Your task to perform on an android device: move a message to another label in the gmail app Image 0: 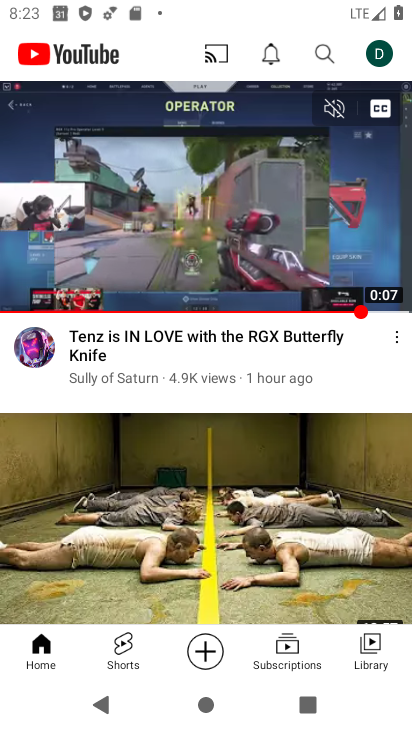
Step 0: press home button
Your task to perform on an android device: move a message to another label in the gmail app Image 1: 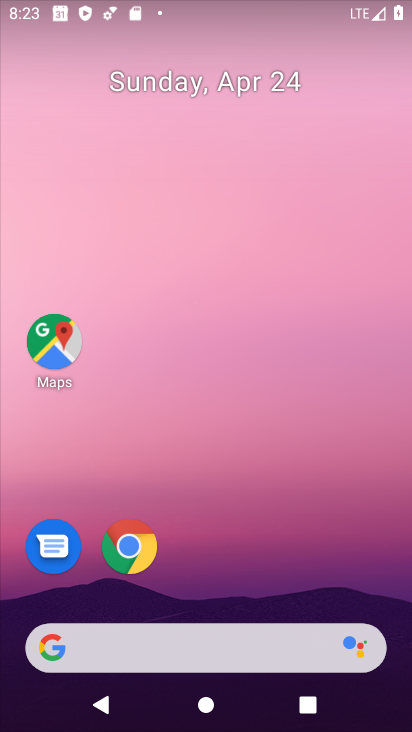
Step 1: drag from (269, 552) to (283, 75)
Your task to perform on an android device: move a message to another label in the gmail app Image 2: 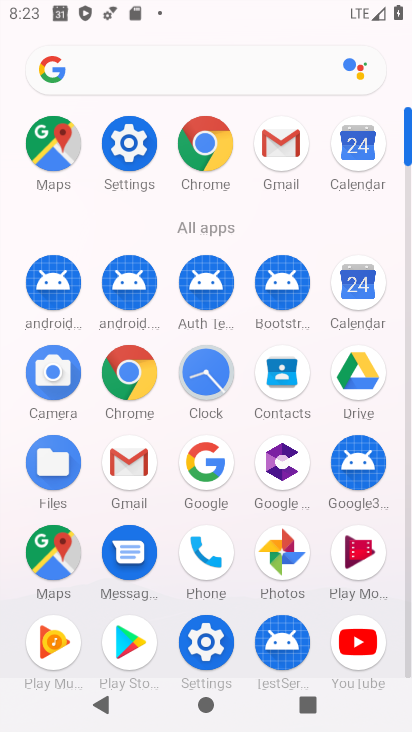
Step 2: click (273, 155)
Your task to perform on an android device: move a message to another label in the gmail app Image 3: 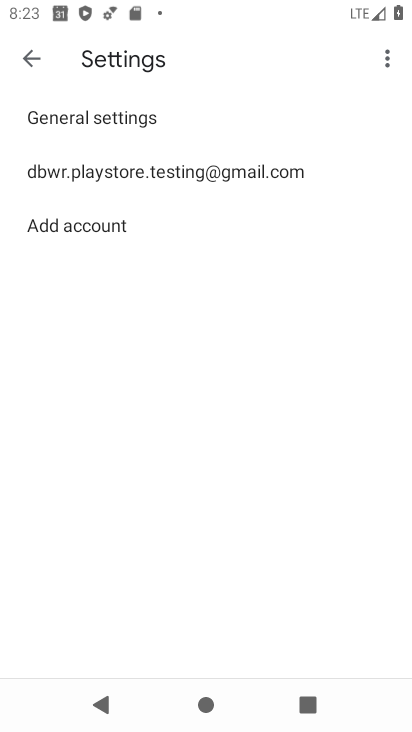
Step 3: click (27, 51)
Your task to perform on an android device: move a message to another label in the gmail app Image 4: 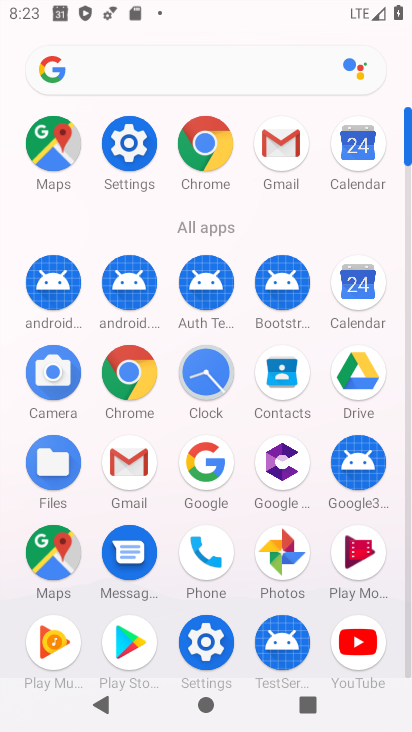
Step 4: click (148, 467)
Your task to perform on an android device: move a message to another label in the gmail app Image 5: 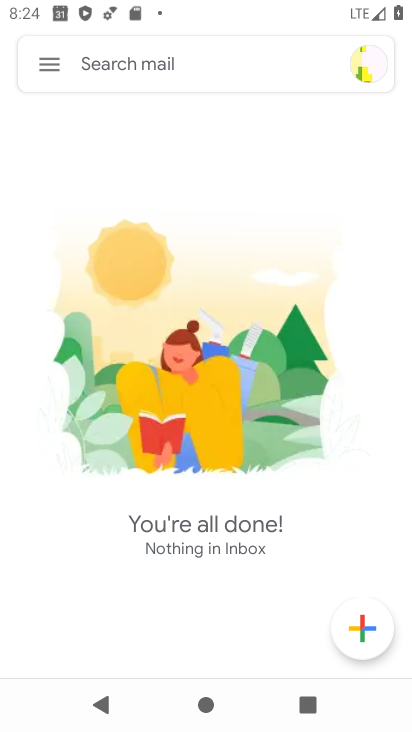
Step 5: click (56, 60)
Your task to perform on an android device: move a message to another label in the gmail app Image 6: 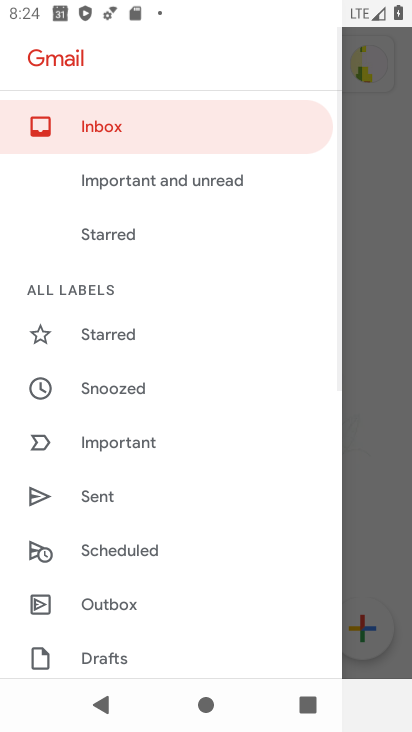
Step 6: drag from (141, 616) to (195, 272)
Your task to perform on an android device: move a message to another label in the gmail app Image 7: 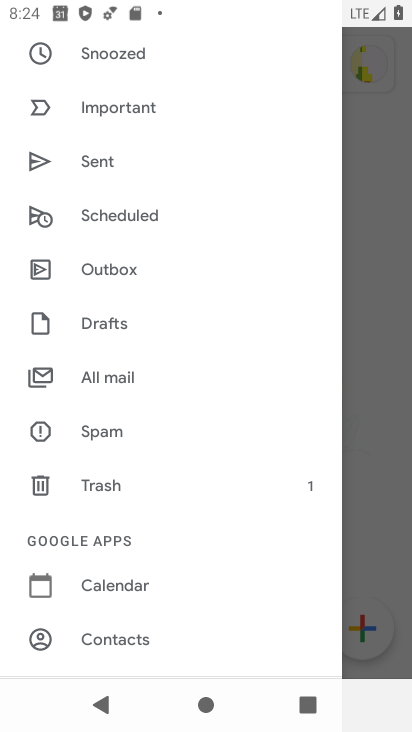
Step 7: click (119, 366)
Your task to perform on an android device: move a message to another label in the gmail app Image 8: 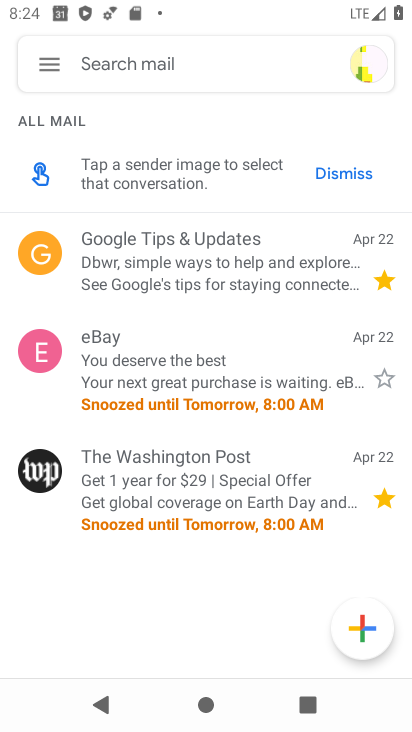
Step 8: click (264, 242)
Your task to perform on an android device: move a message to another label in the gmail app Image 9: 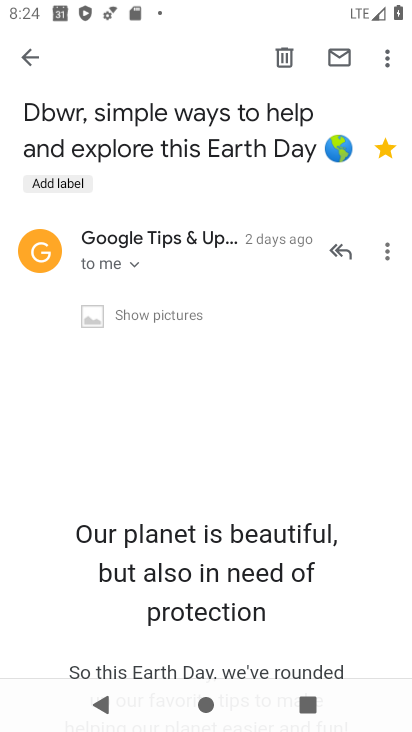
Step 9: click (387, 65)
Your task to perform on an android device: move a message to another label in the gmail app Image 10: 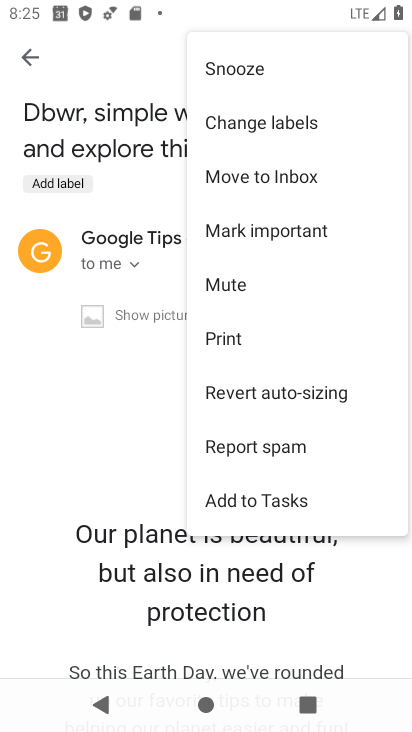
Step 10: click (334, 127)
Your task to perform on an android device: move a message to another label in the gmail app Image 11: 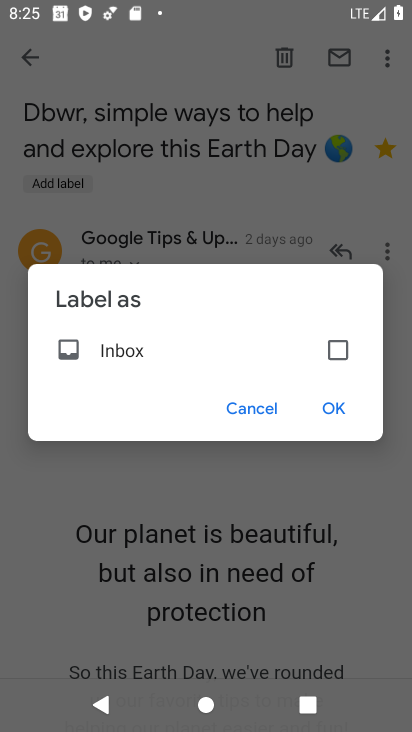
Step 11: click (262, 354)
Your task to perform on an android device: move a message to another label in the gmail app Image 12: 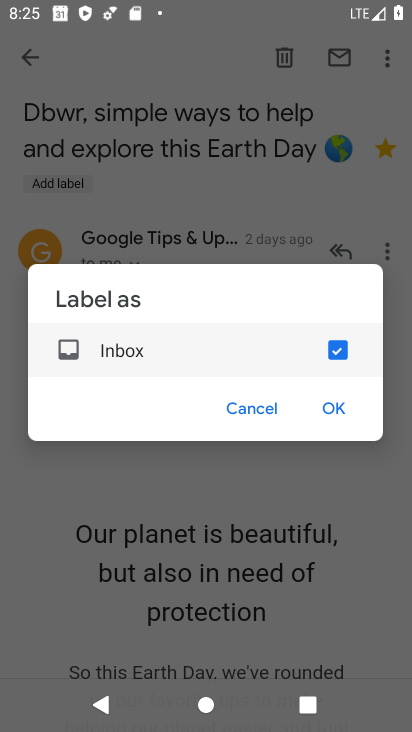
Step 12: click (328, 402)
Your task to perform on an android device: move a message to another label in the gmail app Image 13: 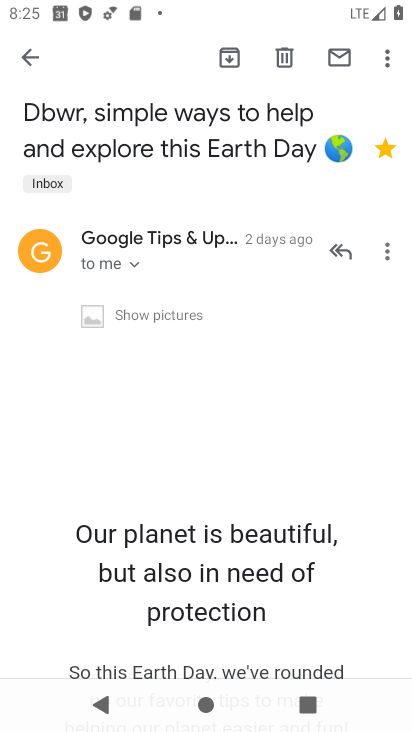
Step 13: task complete